Your task to perform on an android device: clear history in the chrome app Image 0: 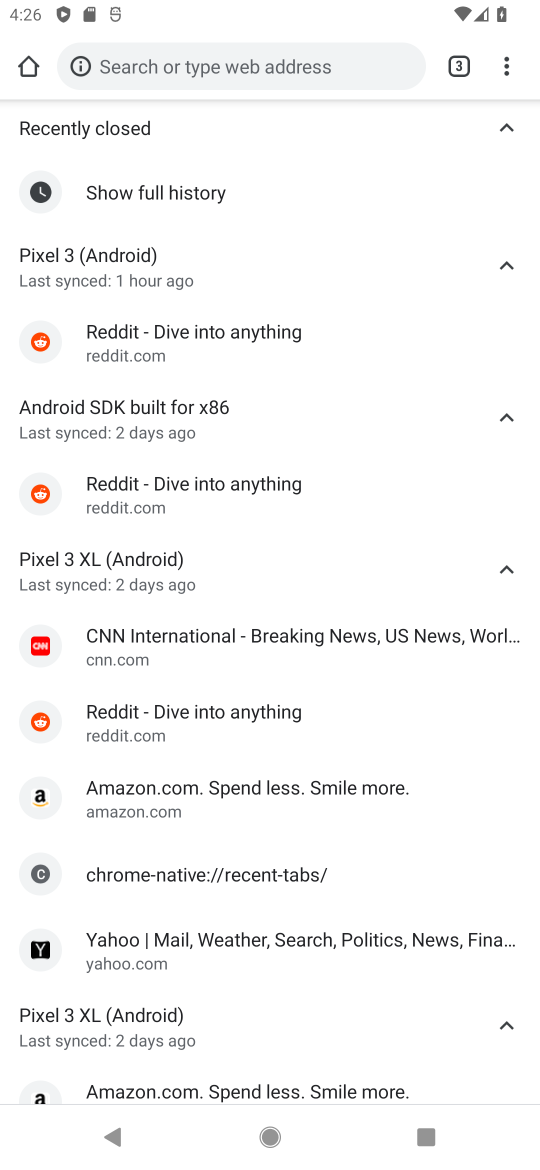
Step 0: click (519, 49)
Your task to perform on an android device: clear history in the chrome app Image 1: 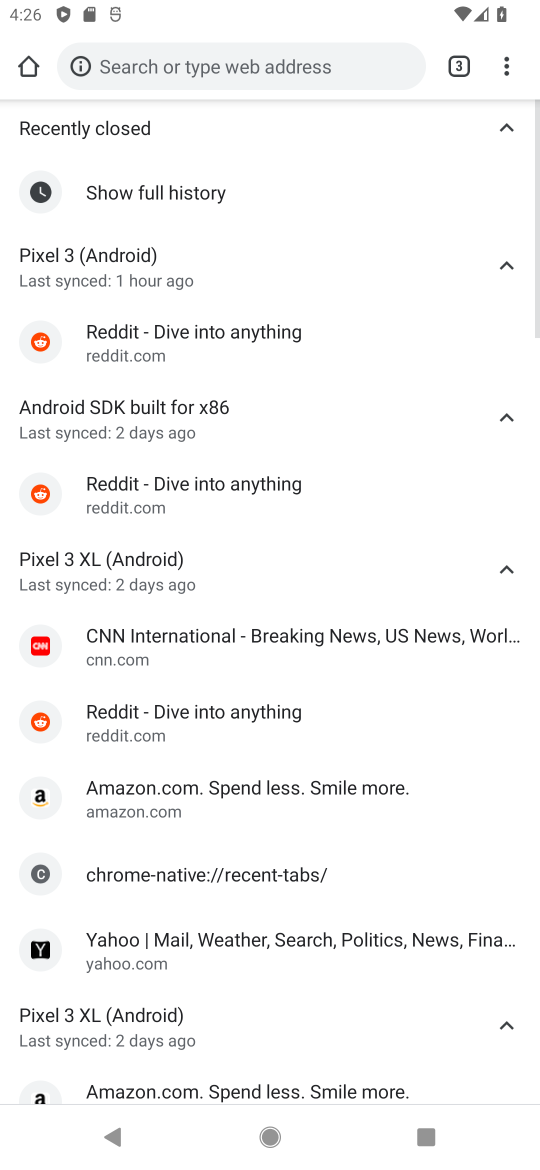
Step 1: click (511, 64)
Your task to perform on an android device: clear history in the chrome app Image 2: 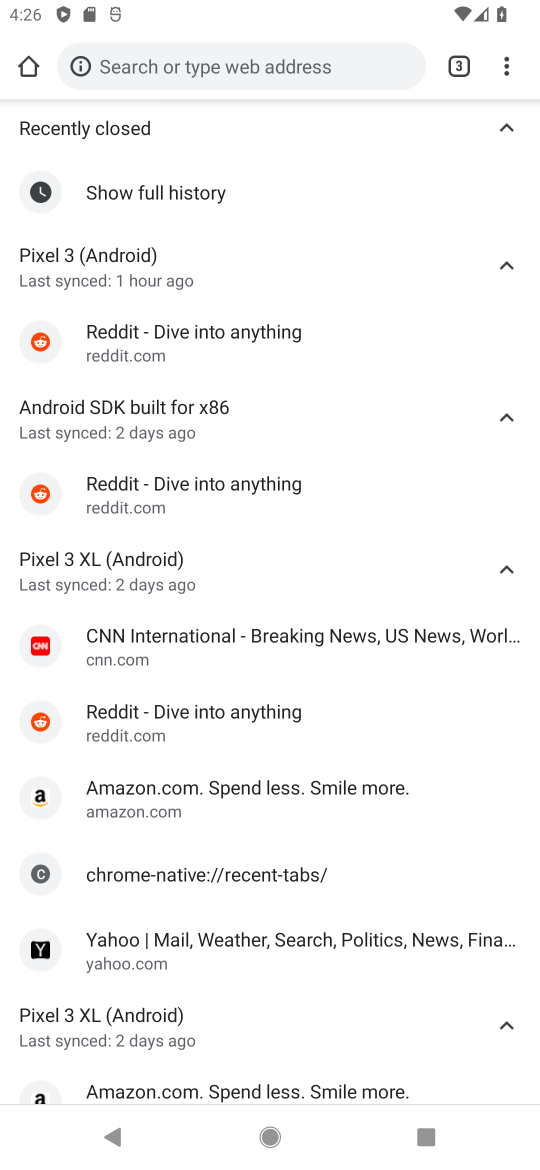
Step 2: click (511, 64)
Your task to perform on an android device: clear history in the chrome app Image 3: 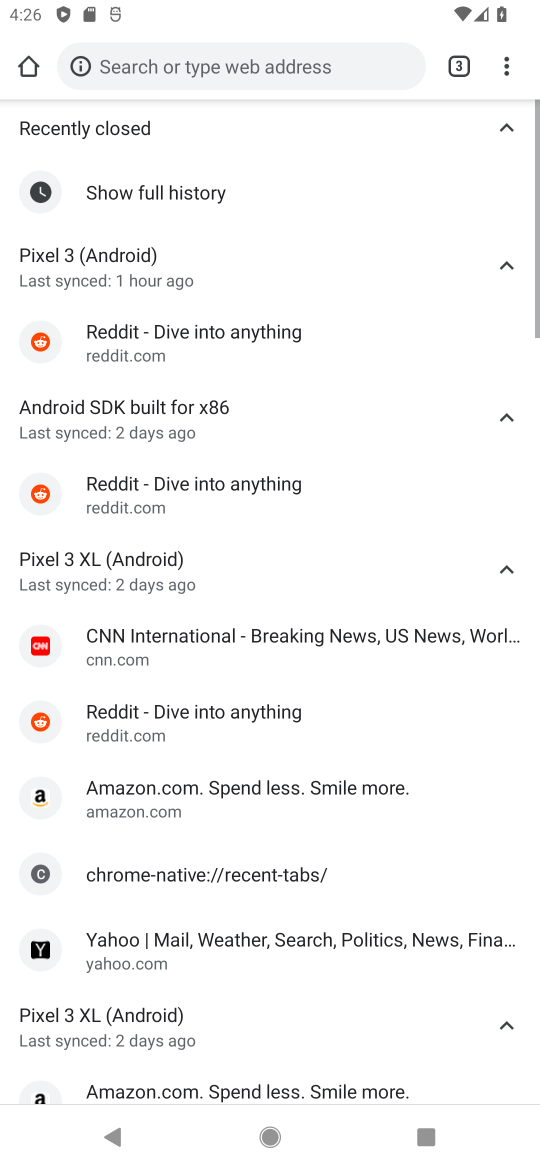
Step 3: click (511, 64)
Your task to perform on an android device: clear history in the chrome app Image 4: 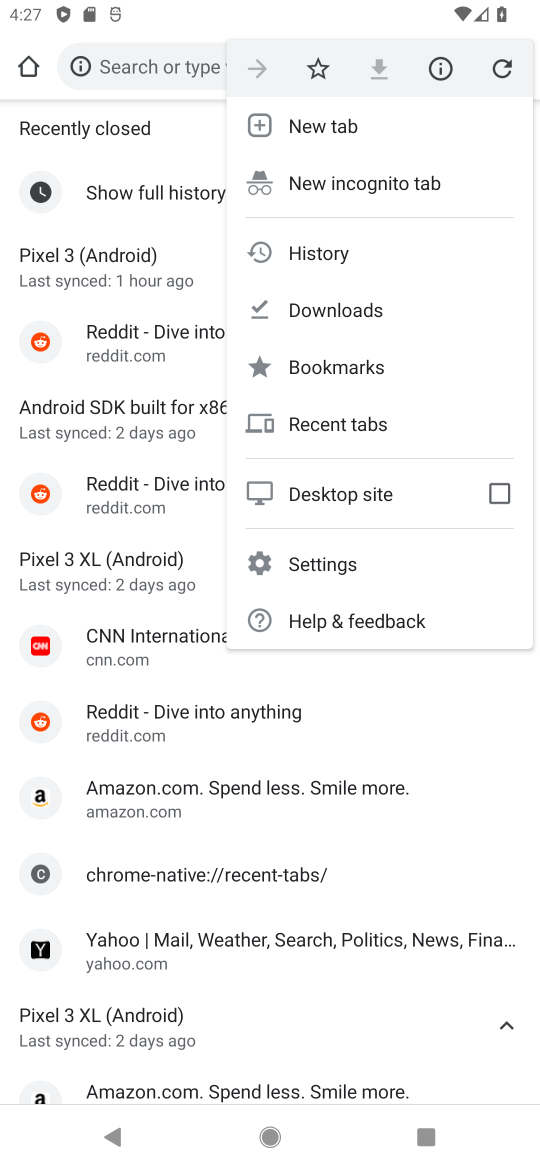
Step 4: click (360, 244)
Your task to perform on an android device: clear history in the chrome app Image 5: 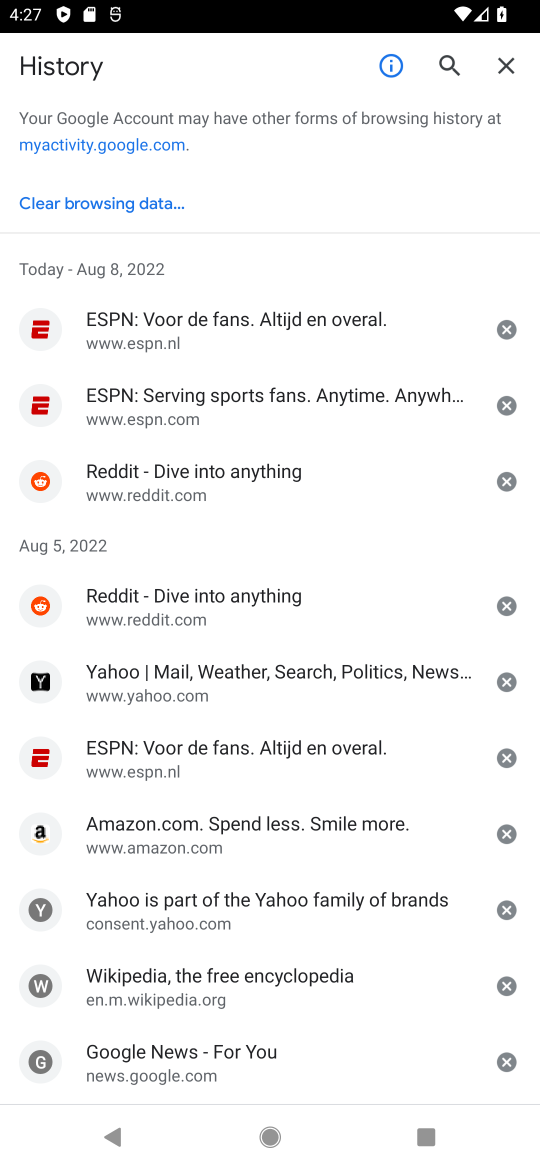
Step 5: click (145, 207)
Your task to perform on an android device: clear history in the chrome app Image 6: 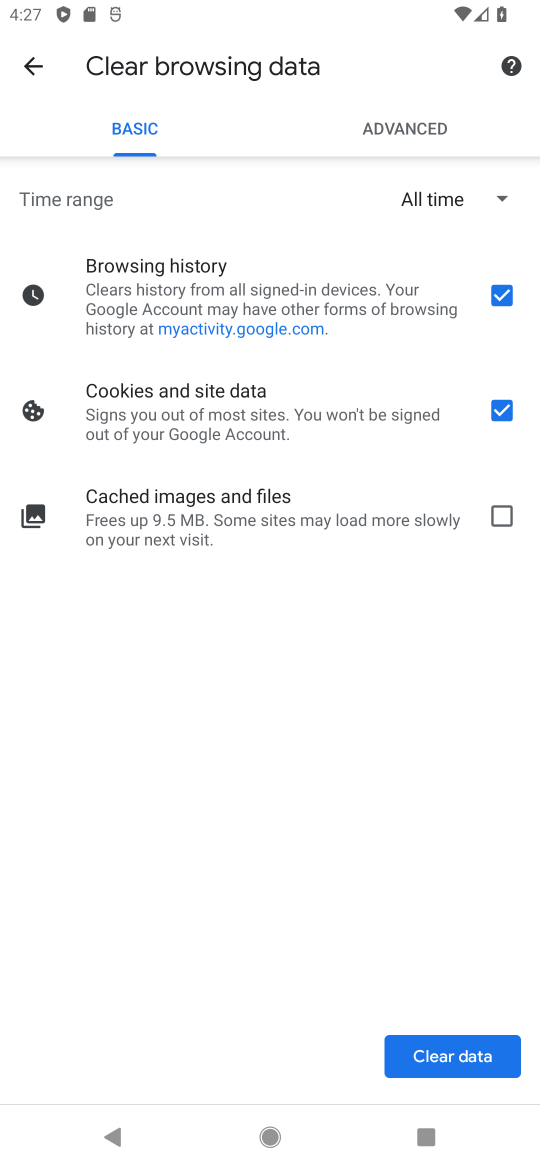
Step 6: task complete